Your task to perform on an android device: Search for Mexican restaurants on Maps Image 0: 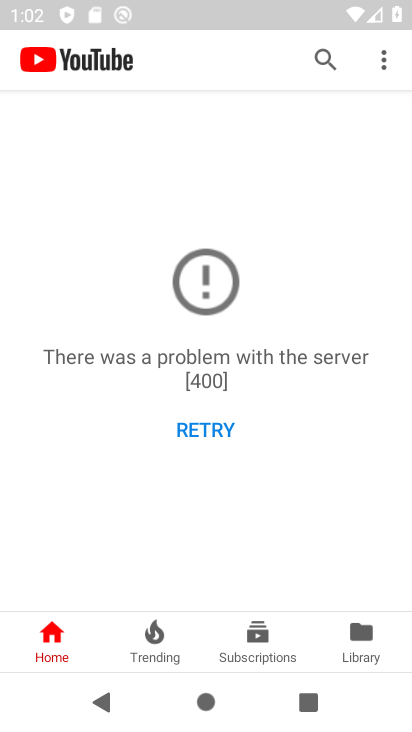
Step 0: press home button
Your task to perform on an android device: Search for Mexican restaurants on Maps Image 1: 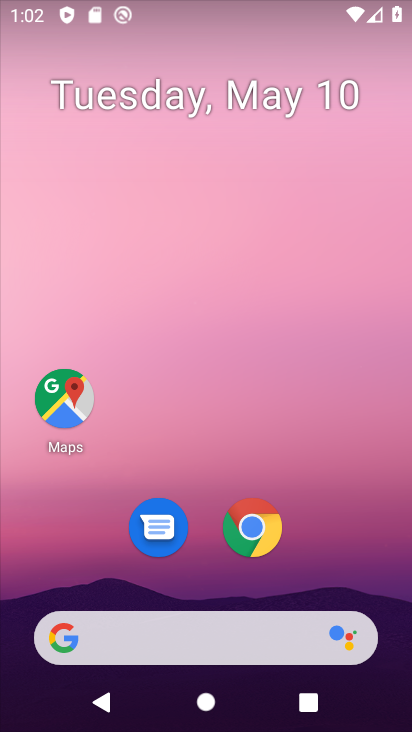
Step 1: click (59, 405)
Your task to perform on an android device: Search for Mexican restaurants on Maps Image 2: 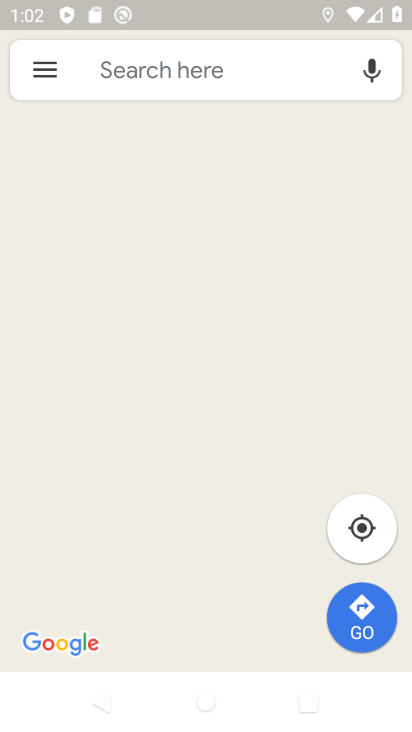
Step 2: click (130, 82)
Your task to perform on an android device: Search for Mexican restaurants on Maps Image 3: 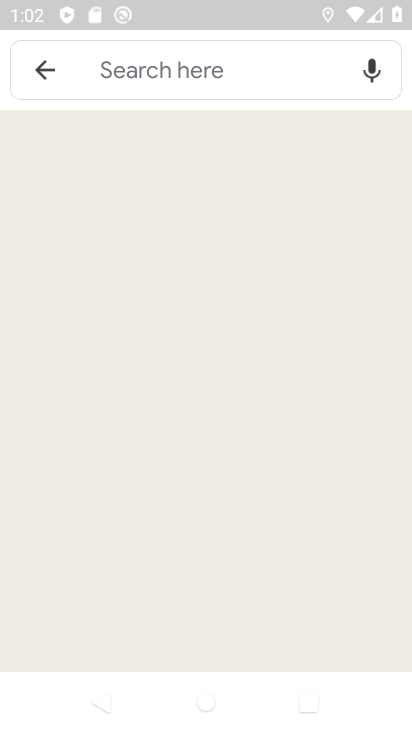
Step 3: click (116, 69)
Your task to perform on an android device: Search for Mexican restaurants on Maps Image 4: 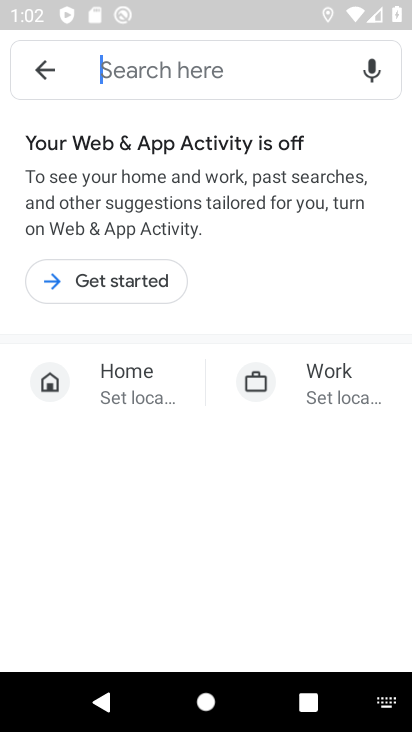
Step 4: click (161, 76)
Your task to perform on an android device: Search for Mexican restaurants on Maps Image 5: 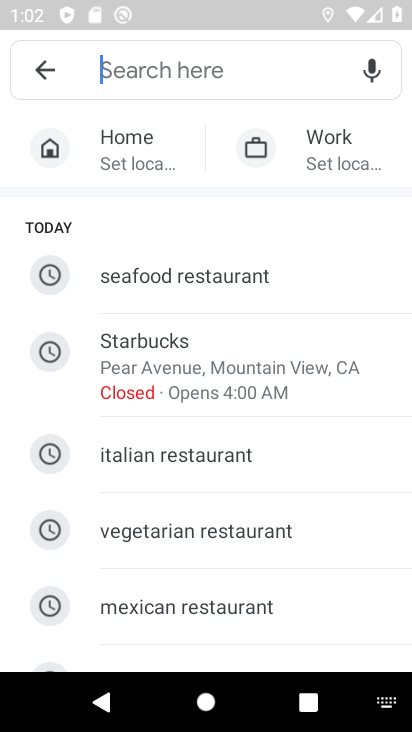
Step 5: click (241, 75)
Your task to perform on an android device: Search for Mexican restaurants on Maps Image 6: 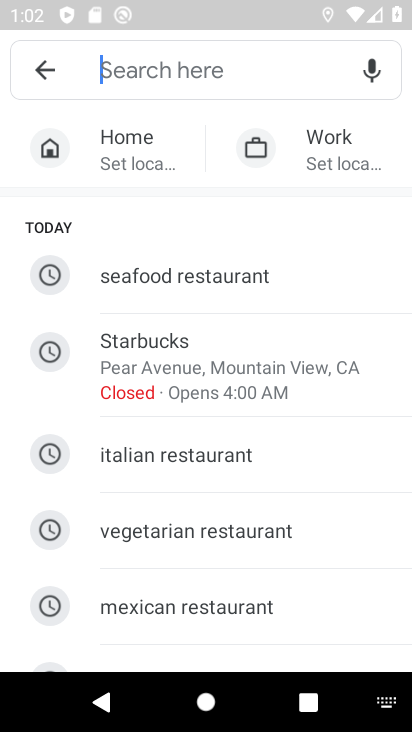
Step 6: type "Mexican restaurants "
Your task to perform on an android device: Search for Mexican restaurants on Maps Image 7: 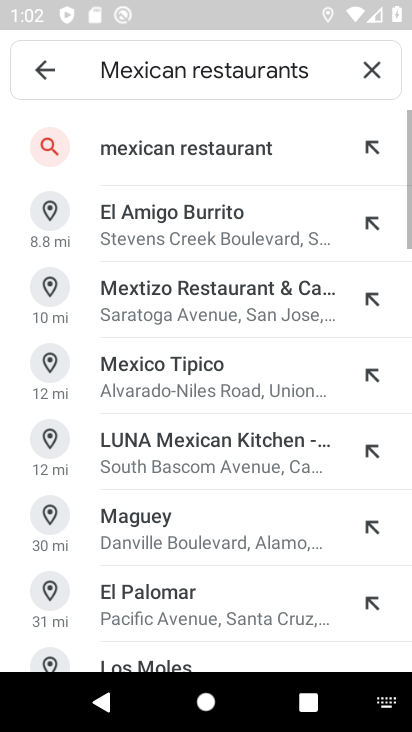
Step 7: click (226, 156)
Your task to perform on an android device: Search for Mexican restaurants on Maps Image 8: 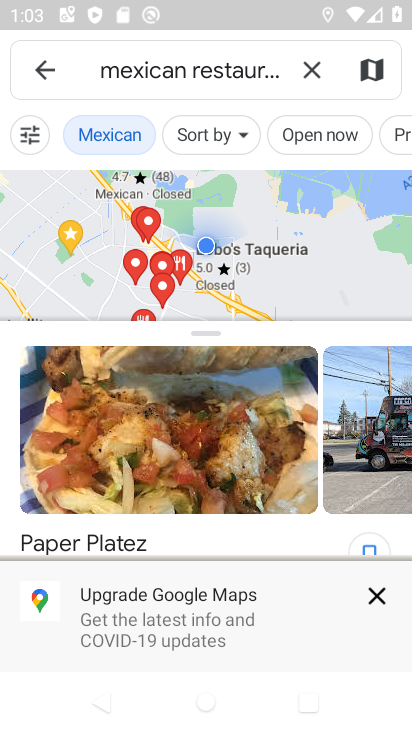
Step 8: task complete